Your task to perform on an android device: clear all cookies in the chrome app Image 0: 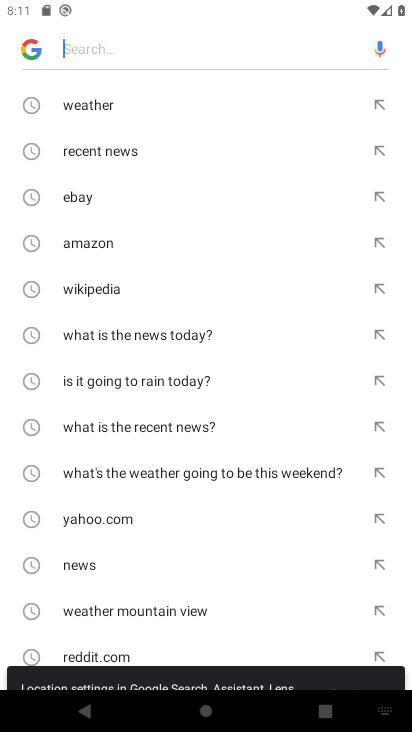
Step 0: press home button
Your task to perform on an android device: clear all cookies in the chrome app Image 1: 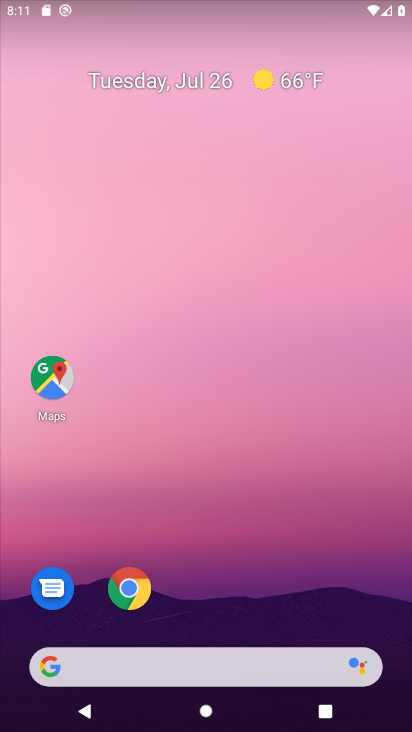
Step 1: click (131, 595)
Your task to perform on an android device: clear all cookies in the chrome app Image 2: 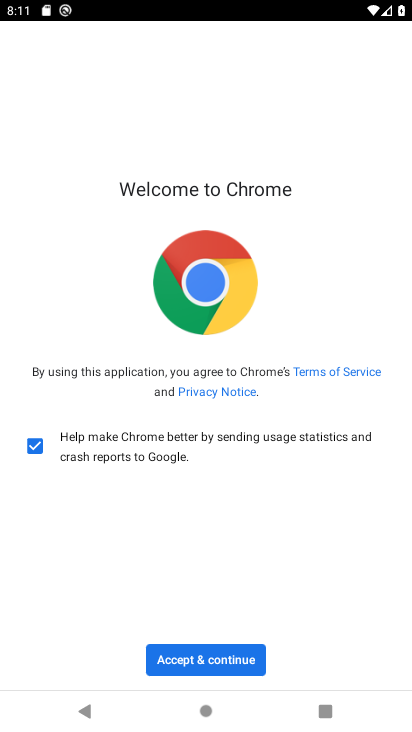
Step 2: click (172, 663)
Your task to perform on an android device: clear all cookies in the chrome app Image 3: 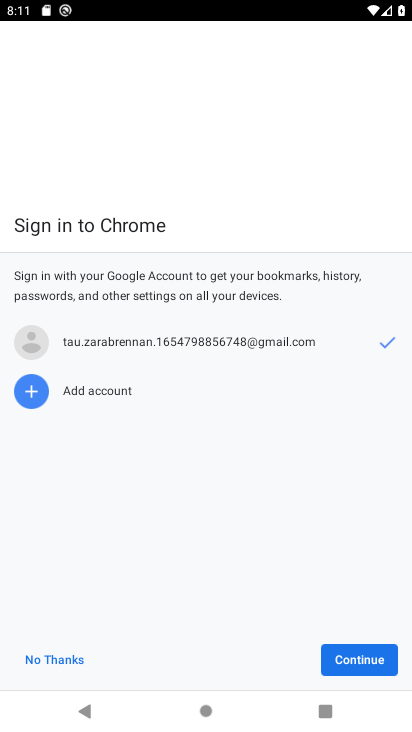
Step 3: click (345, 658)
Your task to perform on an android device: clear all cookies in the chrome app Image 4: 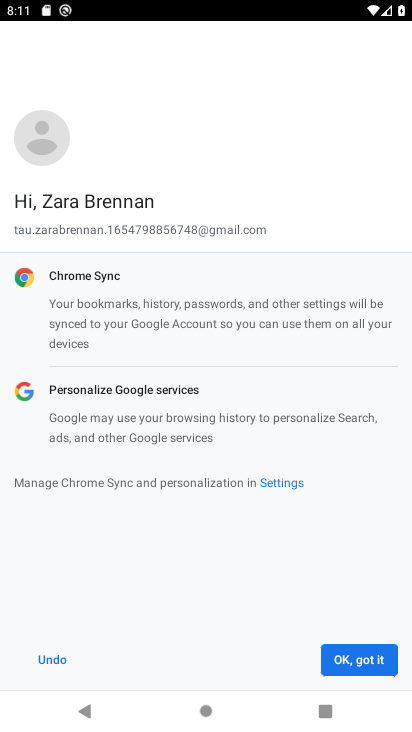
Step 4: click (344, 663)
Your task to perform on an android device: clear all cookies in the chrome app Image 5: 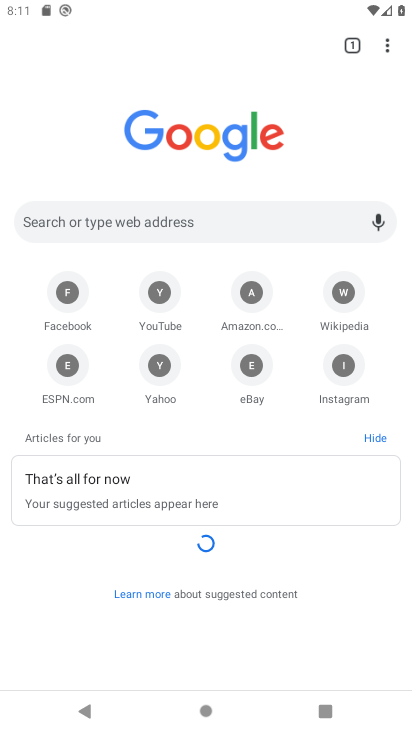
Step 5: click (389, 46)
Your task to perform on an android device: clear all cookies in the chrome app Image 6: 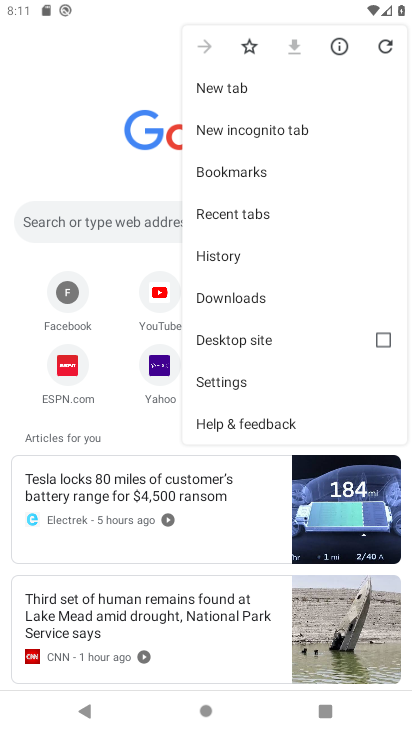
Step 6: click (210, 256)
Your task to perform on an android device: clear all cookies in the chrome app Image 7: 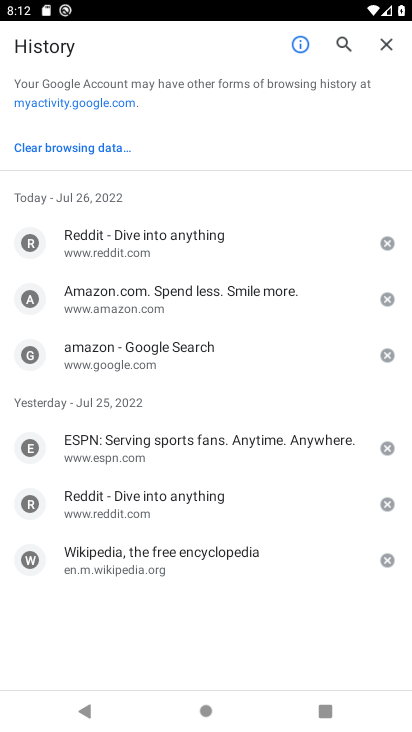
Step 7: click (81, 145)
Your task to perform on an android device: clear all cookies in the chrome app Image 8: 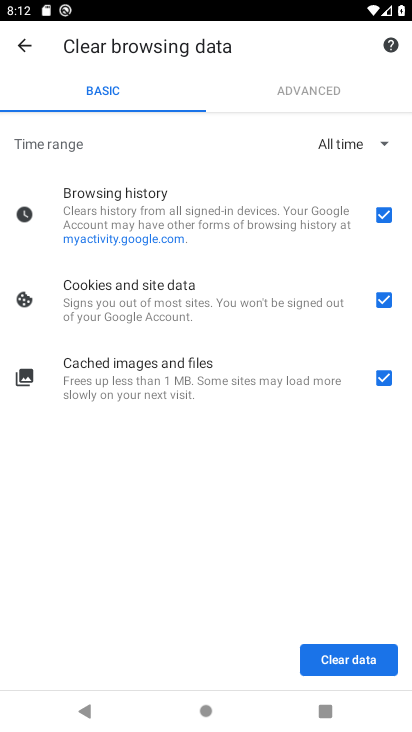
Step 8: click (379, 373)
Your task to perform on an android device: clear all cookies in the chrome app Image 9: 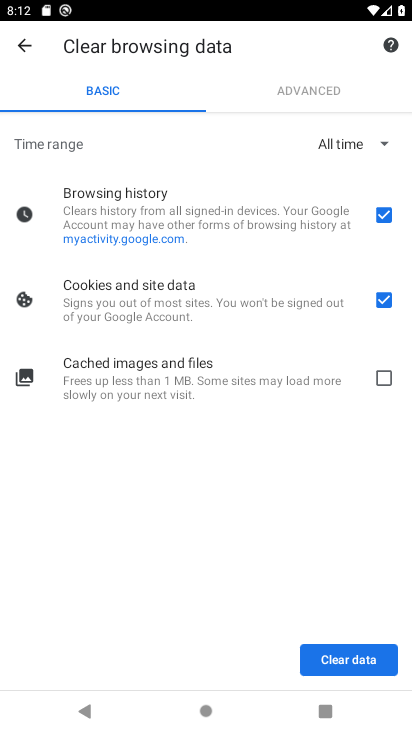
Step 9: click (382, 214)
Your task to perform on an android device: clear all cookies in the chrome app Image 10: 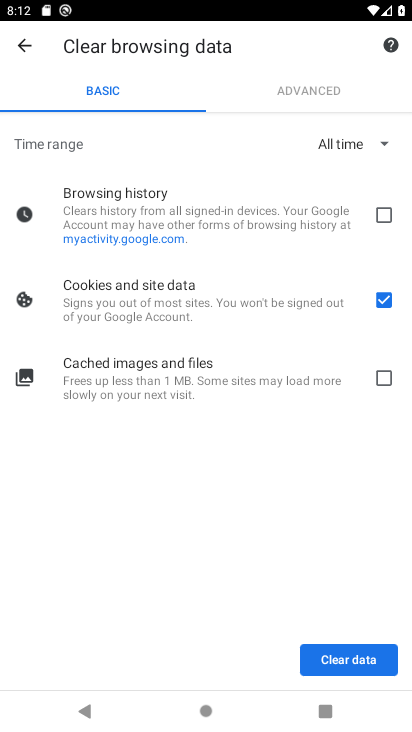
Step 10: click (345, 660)
Your task to perform on an android device: clear all cookies in the chrome app Image 11: 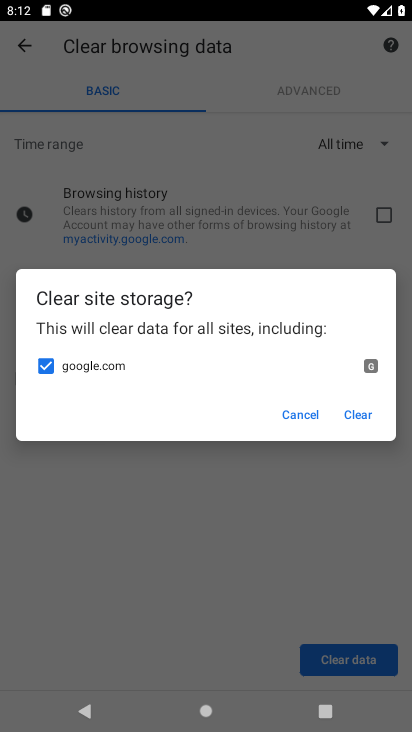
Step 11: click (357, 415)
Your task to perform on an android device: clear all cookies in the chrome app Image 12: 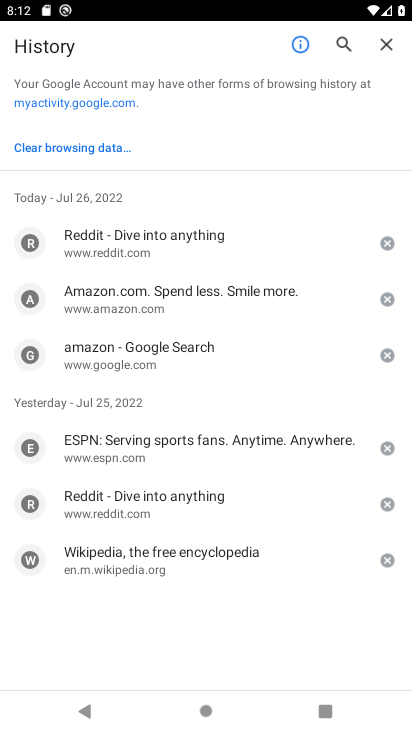
Step 12: task complete